Your task to perform on an android device: Is it going to rain tomorrow? Image 0: 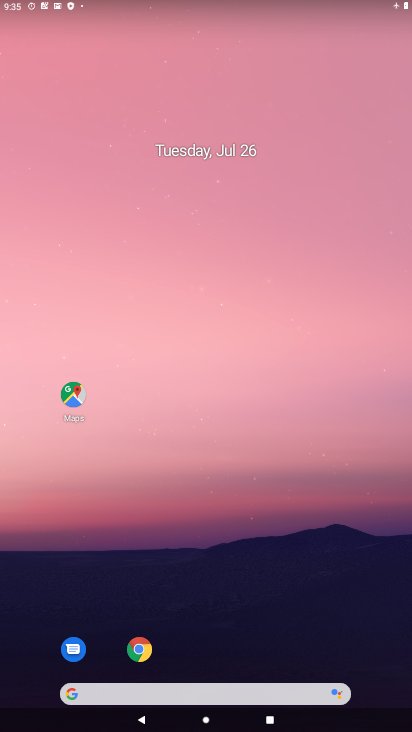
Step 0: drag from (198, 622) to (237, 249)
Your task to perform on an android device: Is it going to rain tomorrow? Image 1: 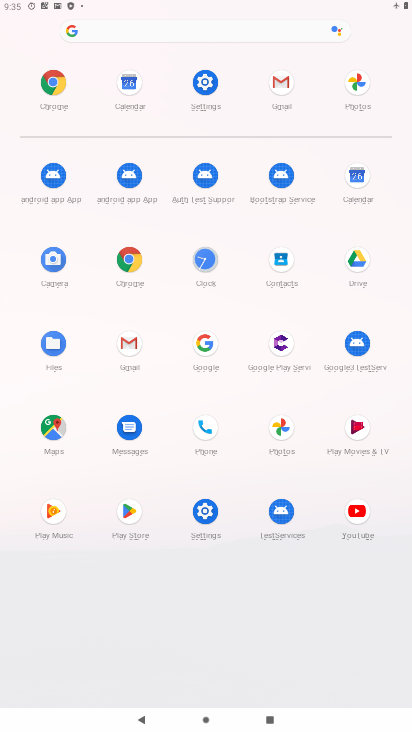
Step 1: click (145, 17)
Your task to perform on an android device: Is it going to rain tomorrow? Image 2: 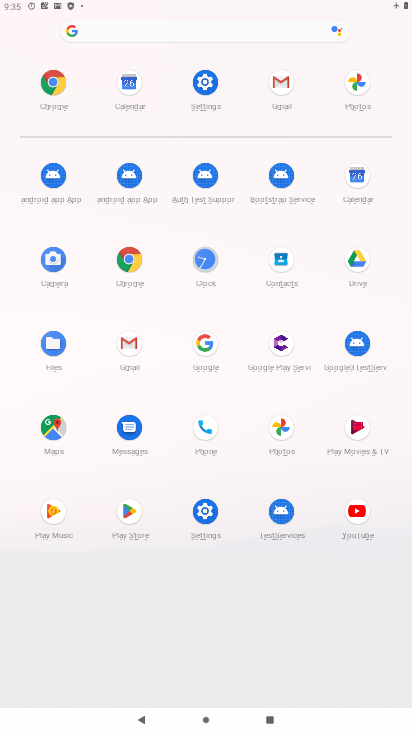
Step 2: click (139, 24)
Your task to perform on an android device: Is it going to rain tomorrow? Image 3: 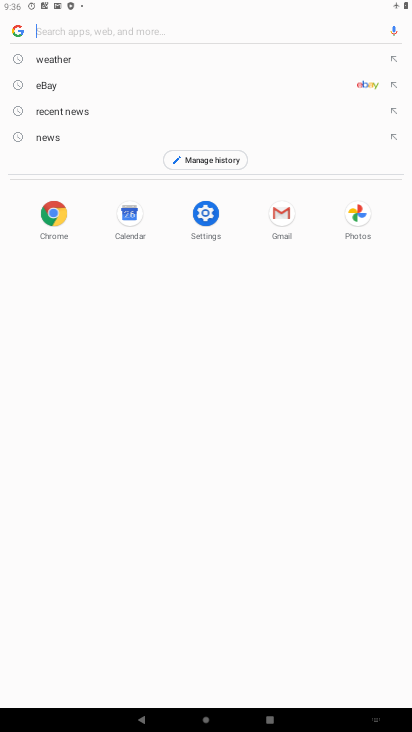
Step 3: type "Is it going to rain tomorrow?"
Your task to perform on an android device: Is it going to rain tomorrow? Image 4: 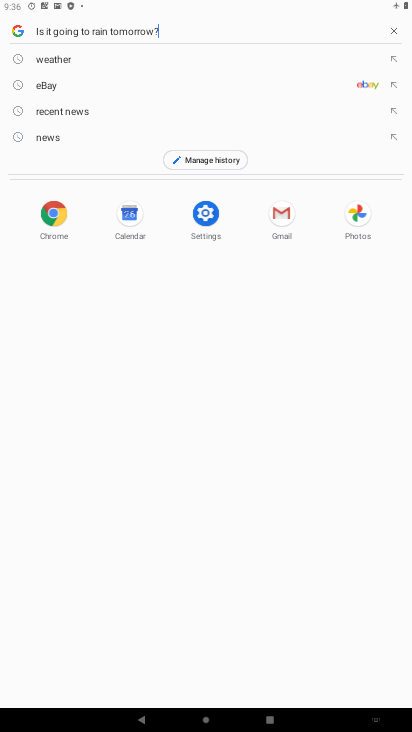
Step 4: type ""
Your task to perform on an android device: Is it going to rain tomorrow? Image 5: 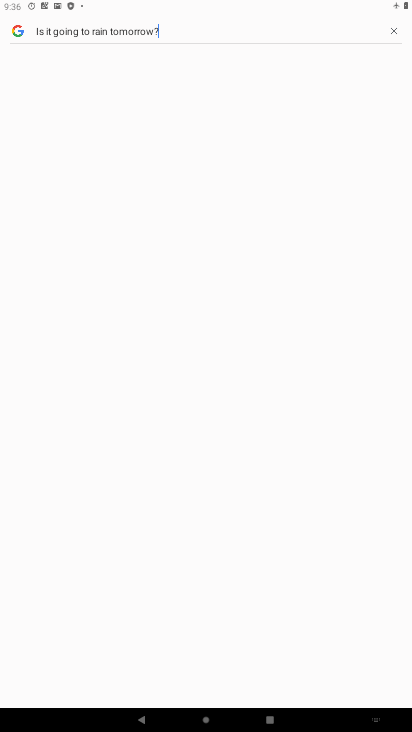
Step 5: drag from (109, 67) to (188, 373)
Your task to perform on an android device: Is it going to rain tomorrow? Image 6: 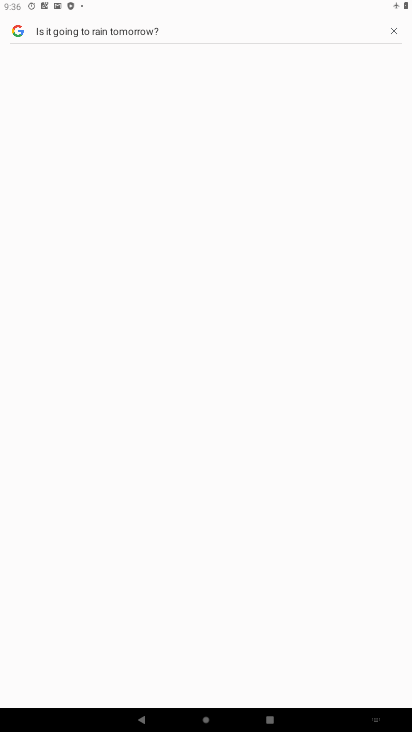
Step 6: drag from (129, 73) to (282, 348)
Your task to perform on an android device: Is it going to rain tomorrow? Image 7: 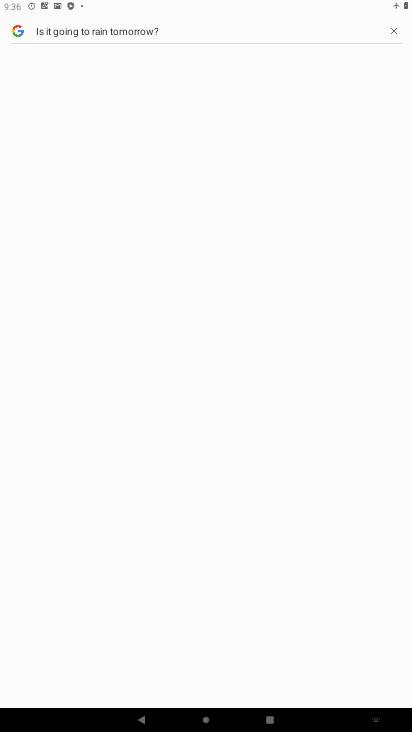
Step 7: click (182, 56)
Your task to perform on an android device: Is it going to rain tomorrow? Image 8: 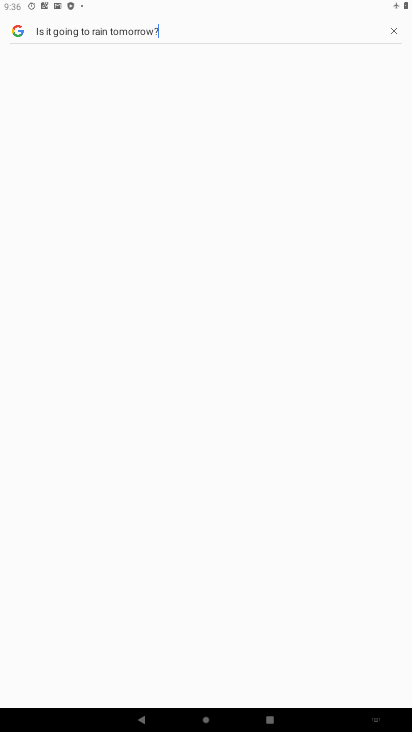
Step 8: click (165, 66)
Your task to perform on an android device: Is it going to rain tomorrow? Image 9: 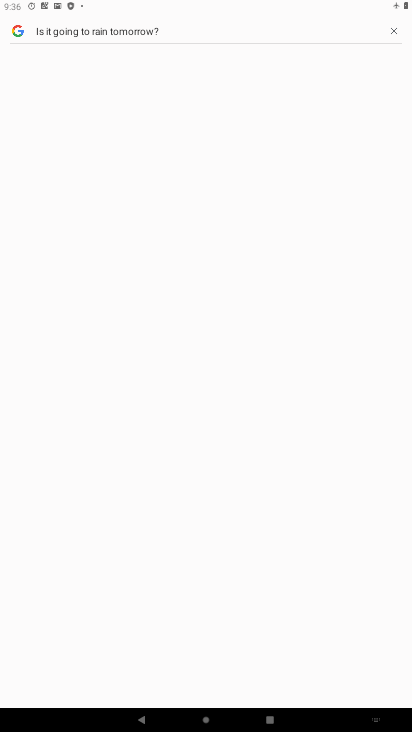
Step 9: click (165, 66)
Your task to perform on an android device: Is it going to rain tomorrow? Image 10: 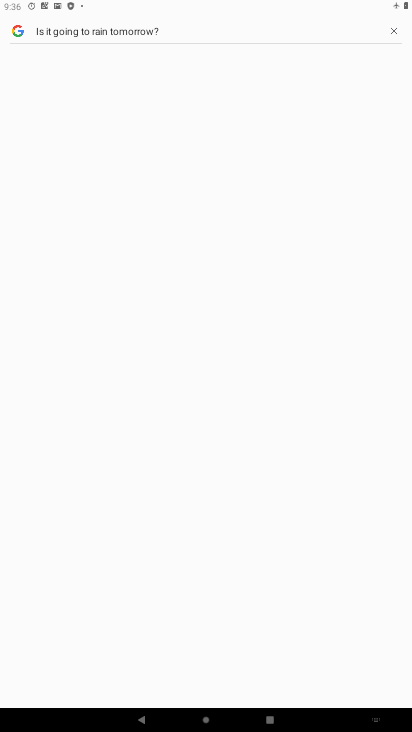
Step 10: click (165, 66)
Your task to perform on an android device: Is it going to rain tomorrow? Image 11: 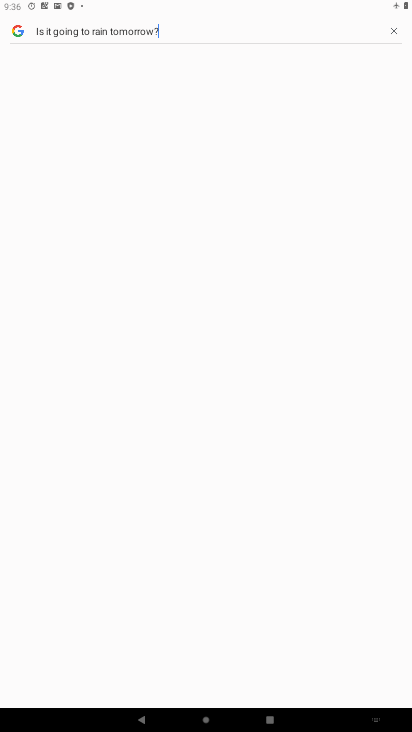
Step 11: click (165, 66)
Your task to perform on an android device: Is it going to rain tomorrow? Image 12: 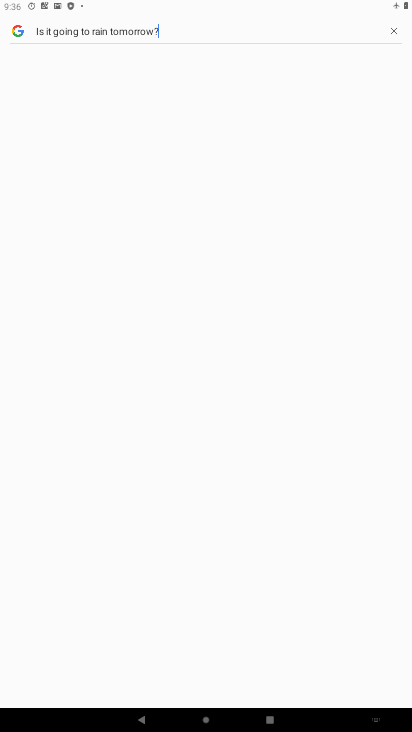
Step 12: task complete